Your task to perform on an android device: turn off priority inbox in the gmail app Image 0: 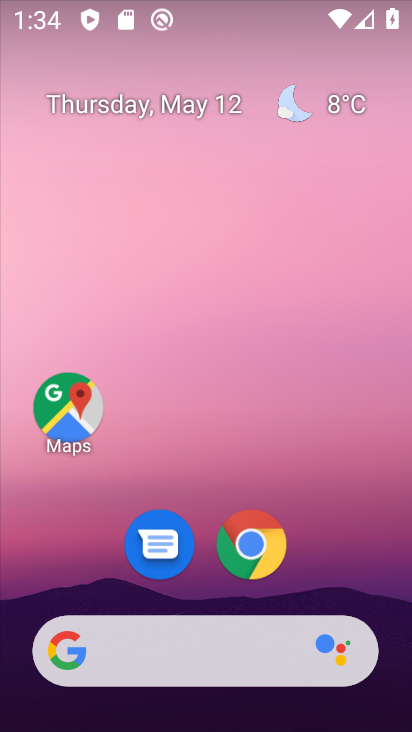
Step 0: drag from (80, 622) to (204, 179)
Your task to perform on an android device: turn off priority inbox in the gmail app Image 1: 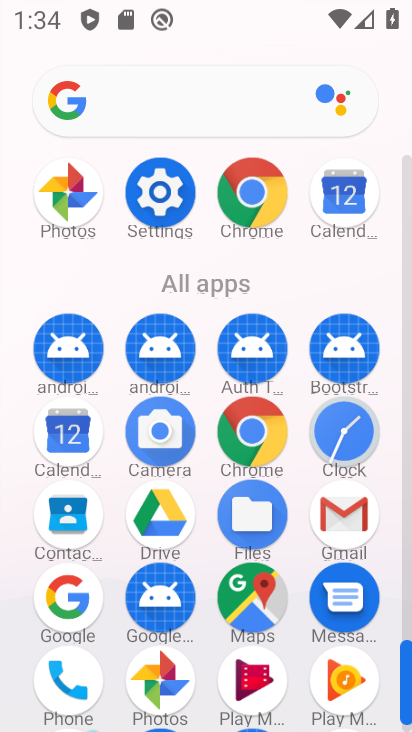
Step 1: drag from (149, 644) to (200, 428)
Your task to perform on an android device: turn off priority inbox in the gmail app Image 2: 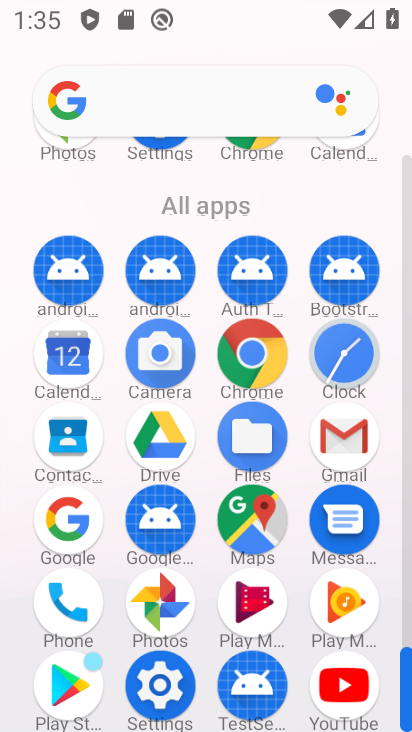
Step 2: click (343, 432)
Your task to perform on an android device: turn off priority inbox in the gmail app Image 3: 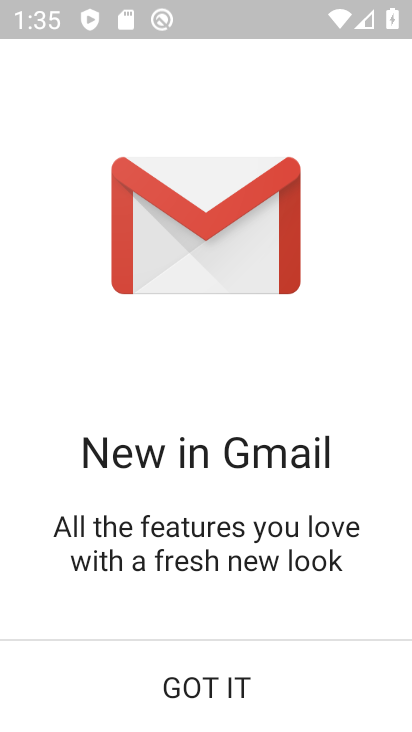
Step 3: click (240, 681)
Your task to perform on an android device: turn off priority inbox in the gmail app Image 4: 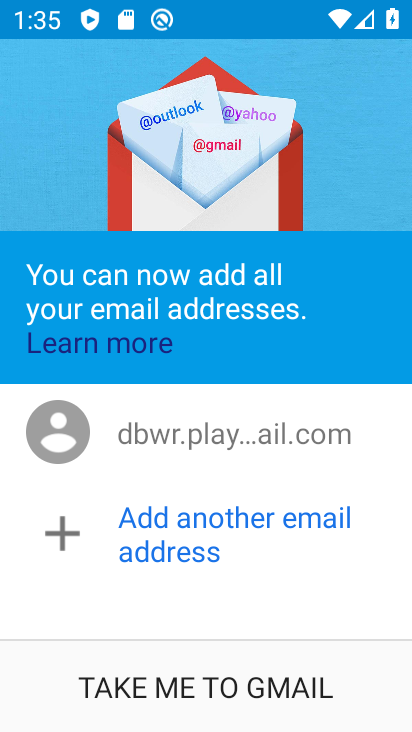
Step 4: click (240, 681)
Your task to perform on an android device: turn off priority inbox in the gmail app Image 5: 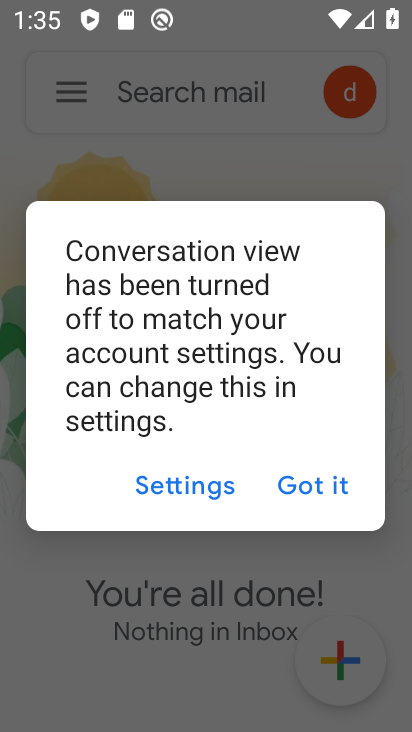
Step 5: click (328, 486)
Your task to perform on an android device: turn off priority inbox in the gmail app Image 6: 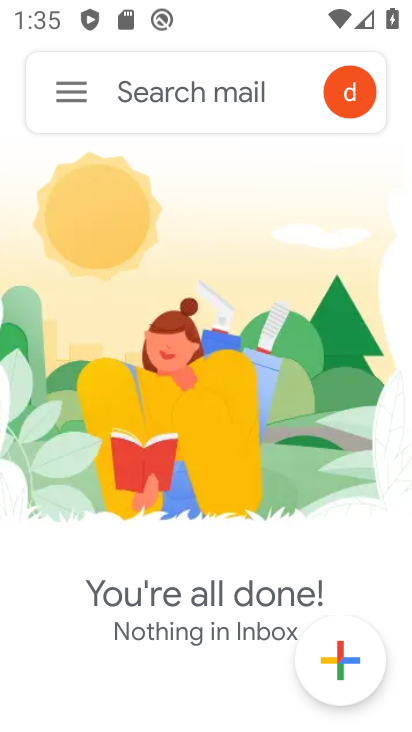
Step 6: click (66, 97)
Your task to perform on an android device: turn off priority inbox in the gmail app Image 7: 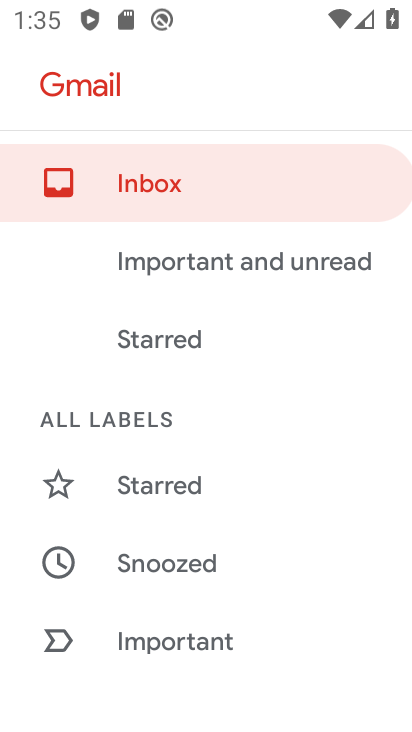
Step 7: drag from (139, 663) to (291, 215)
Your task to perform on an android device: turn off priority inbox in the gmail app Image 8: 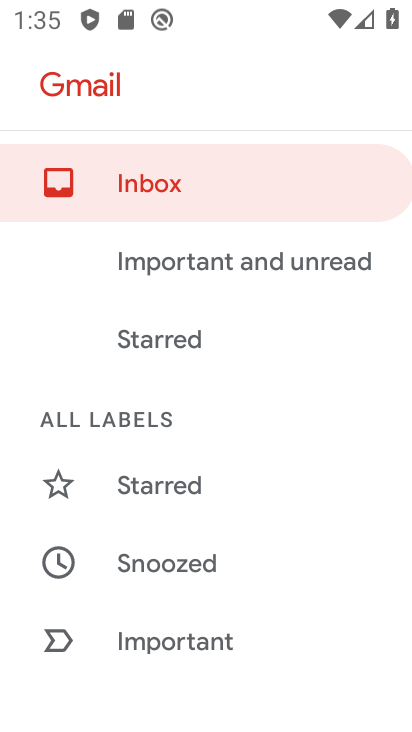
Step 8: drag from (233, 642) to (342, 175)
Your task to perform on an android device: turn off priority inbox in the gmail app Image 9: 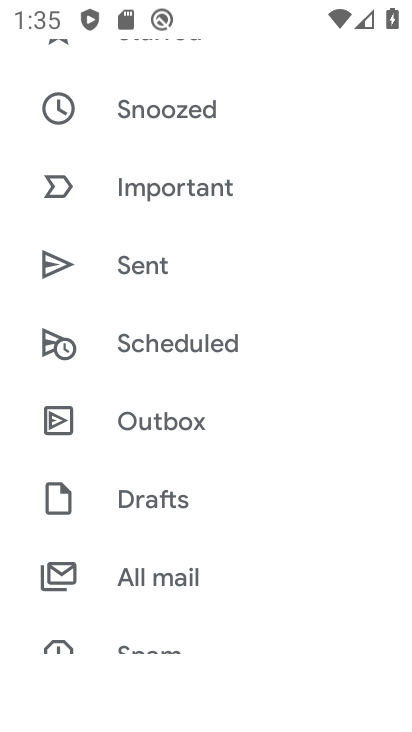
Step 9: drag from (208, 603) to (310, 143)
Your task to perform on an android device: turn off priority inbox in the gmail app Image 10: 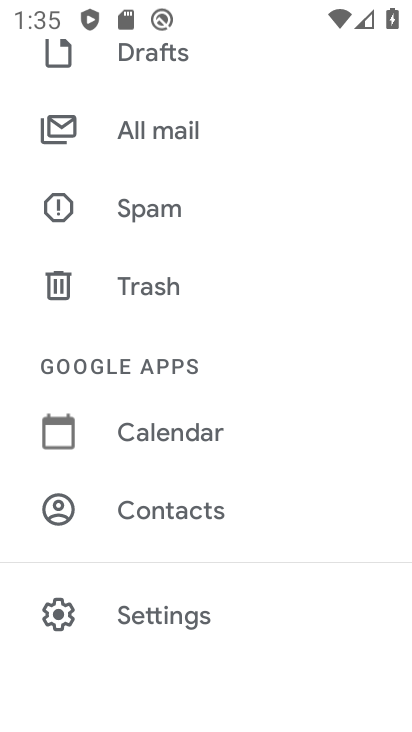
Step 10: click (167, 621)
Your task to perform on an android device: turn off priority inbox in the gmail app Image 11: 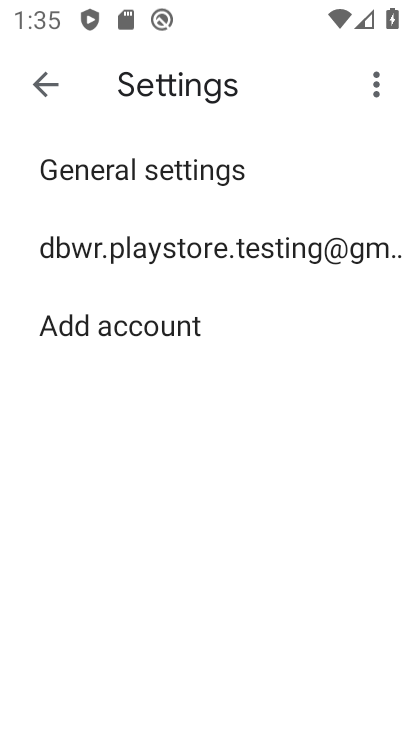
Step 11: click (256, 247)
Your task to perform on an android device: turn off priority inbox in the gmail app Image 12: 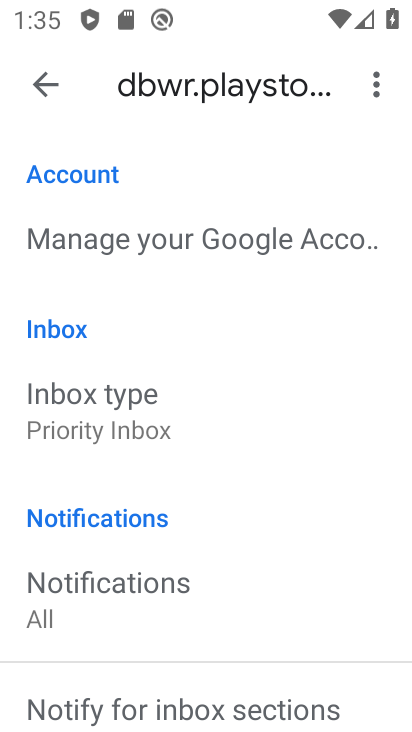
Step 12: drag from (161, 633) to (196, 484)
Your task to perform on an android device: turn off priority inbox in the gmail app Image 13: 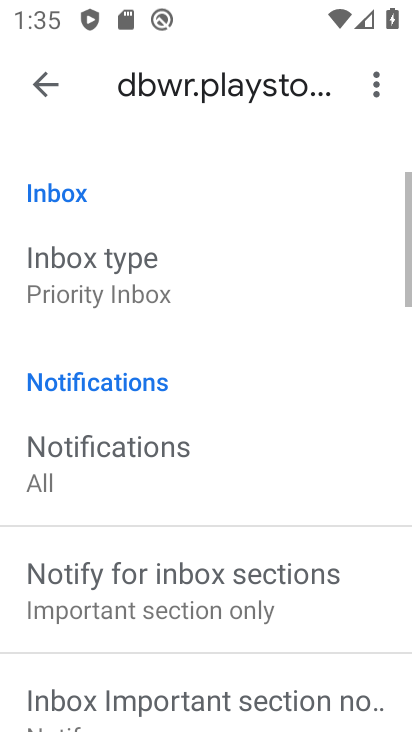
Step 13: click (201, 269)
Your task to perform on an android device: turn off priority inbox in the gmail app Image 14: 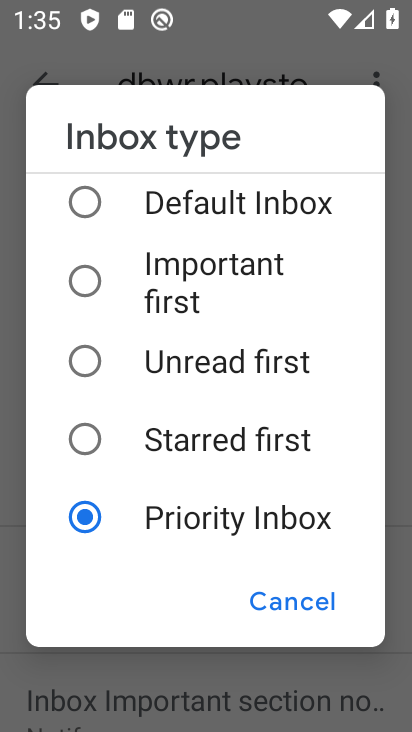
Step 14: click (222, 221)
Your task to perform on an android device: turn off priority inbox in the gmail app Image 15: 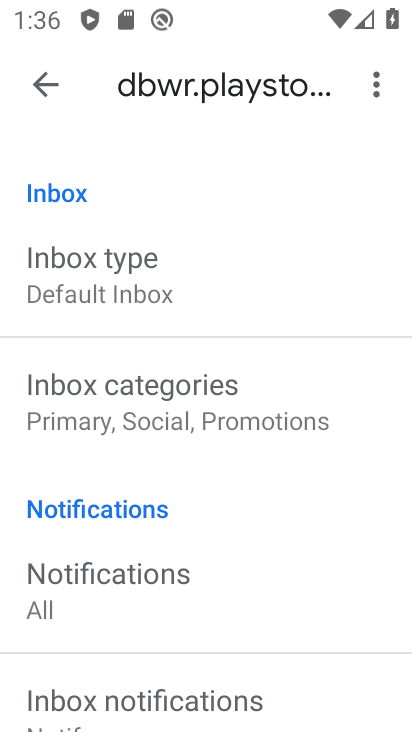
Step 15: task complete